Your task to perform on an android device: Open display settings Image 0: 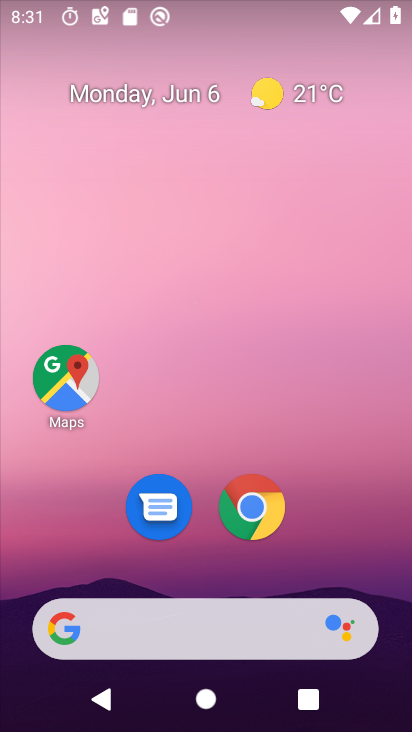
Step 0: press home button
Your task to perform on an android device: Open display settings Image 1: 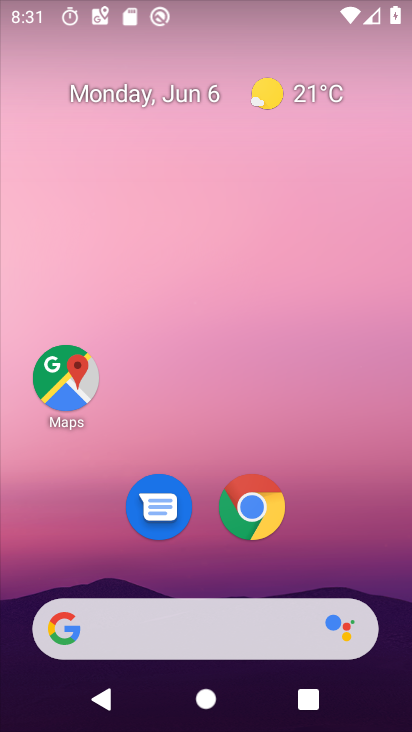
Step 1: drag from (366, 575) to (335, 0)
Your task to perform on an android device: Open display settings Image 2: 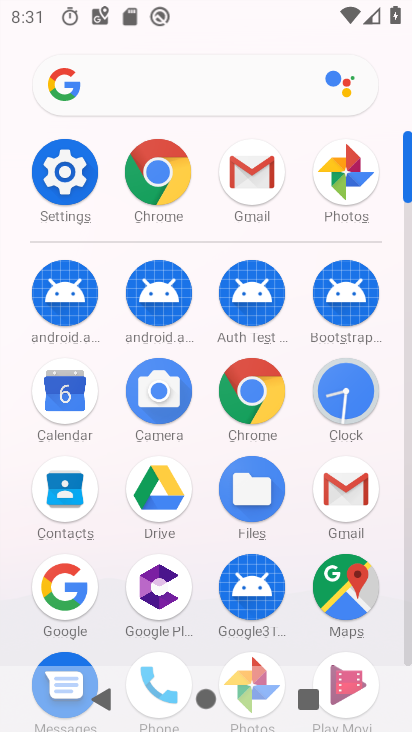
Step 2: click (33, 186)
Your task to perform on an android device: Open display settings Image 3: 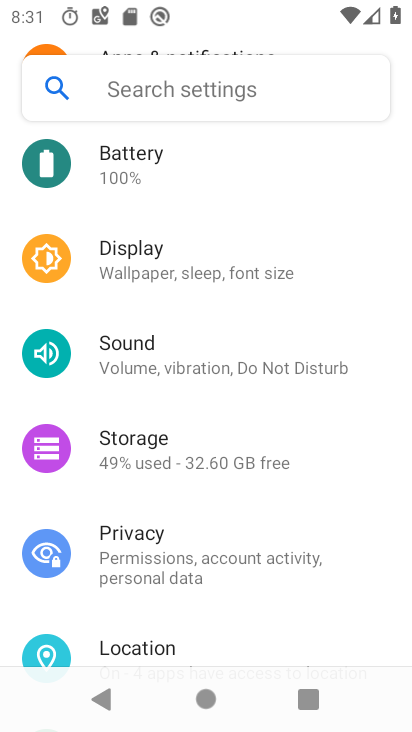
Step 3: click (144, 254)
Your task to perform on an android device: Open display settings Image 4: 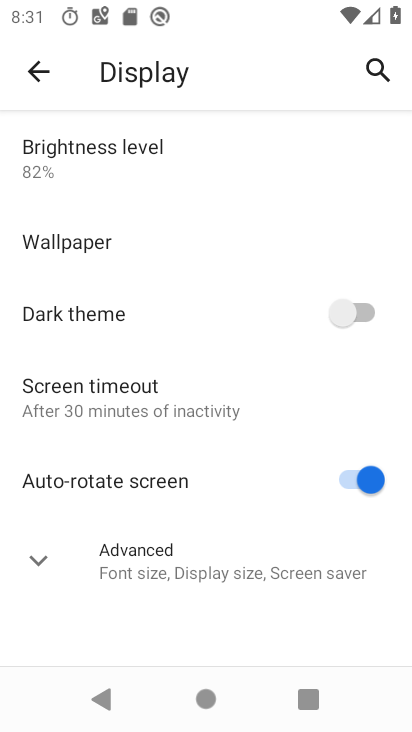
Step 4: task complete